Your task to perform on an android device: Open the calendar and show me this week's events? Image 0: 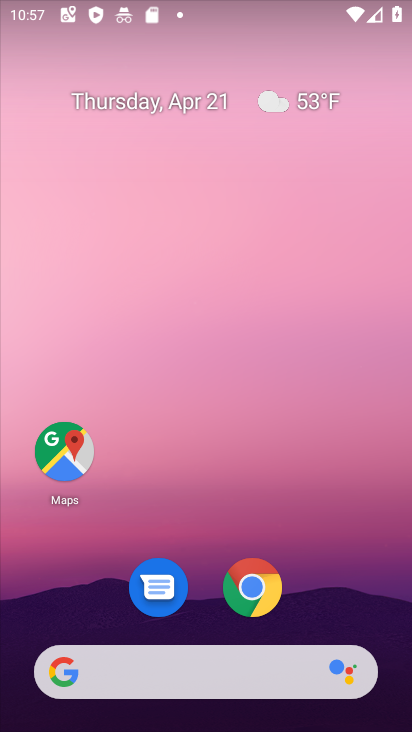
Step 0: click (259, 600)
Your task to perform on an android device: Open the calendar and show me this week's events? Image 1: 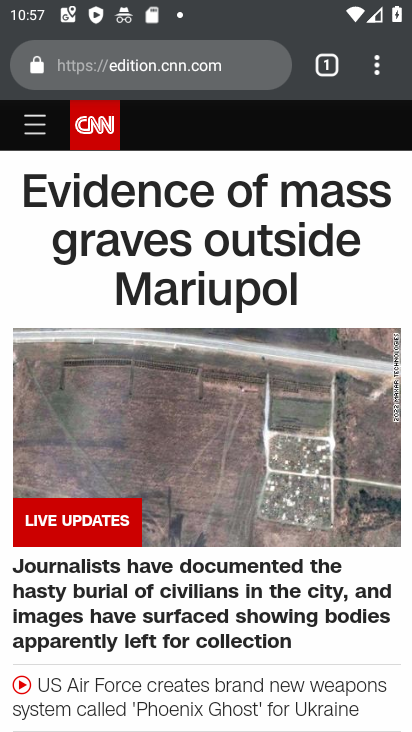
Step 1: press home button
Your task to perform on an android device: Open the calendar and show me this week's events? Image 2: 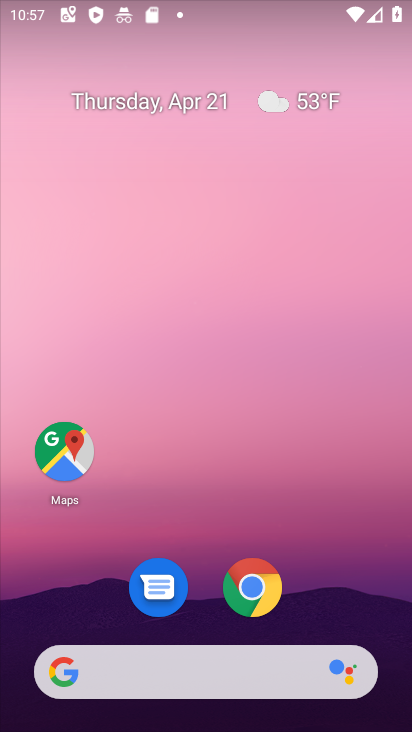
Step 2: click (159, 660)
Your task to perform on an android device: Open the calendar and show me this week's events? Image 3: 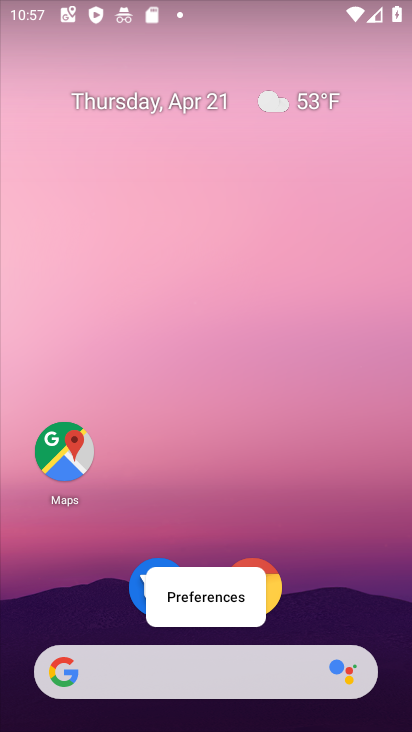
Step 3: drag from (140, 639) to (122, 97)
Your task to perform on an android device: Open the calendar and show me this week's events? Image 4: 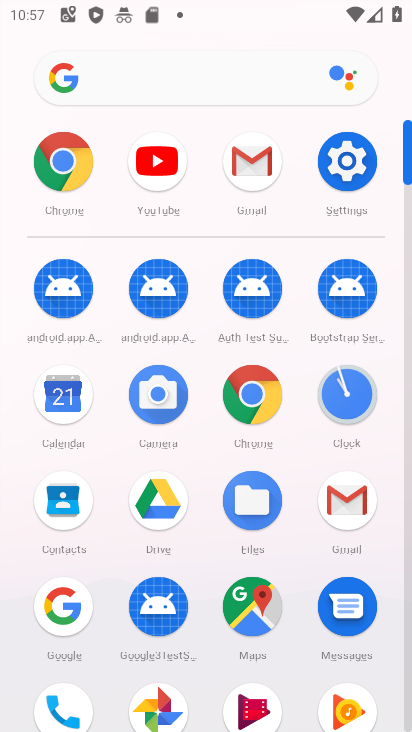
Step 4: click (68, 408)
Your task to perform on an android device: Open the calendar and show me this week's events? Image 5: 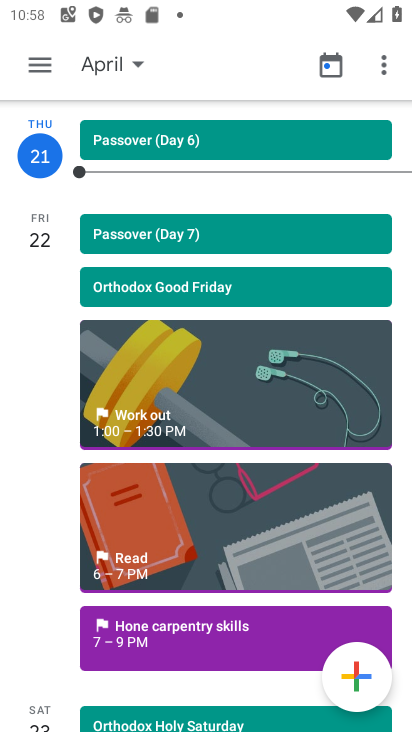
Step 5: click (39, 62)
Your task to perform on an android device: Open the calendar and show me this week's events? Image 6: 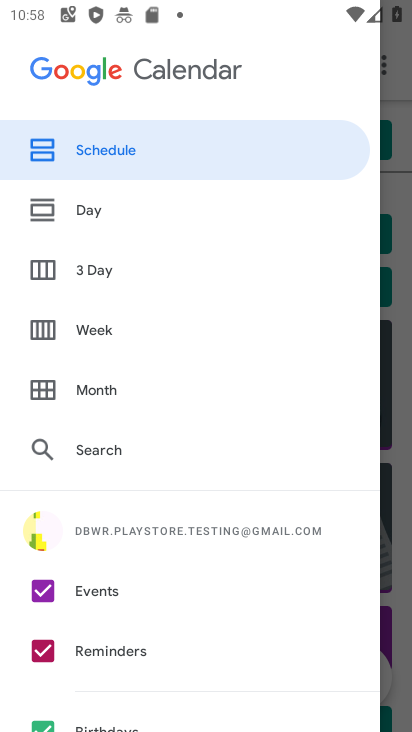
Step 6: click (103, 324)
Your task to perform on an android device: Open the calendar and show me this week's events? Image 7: 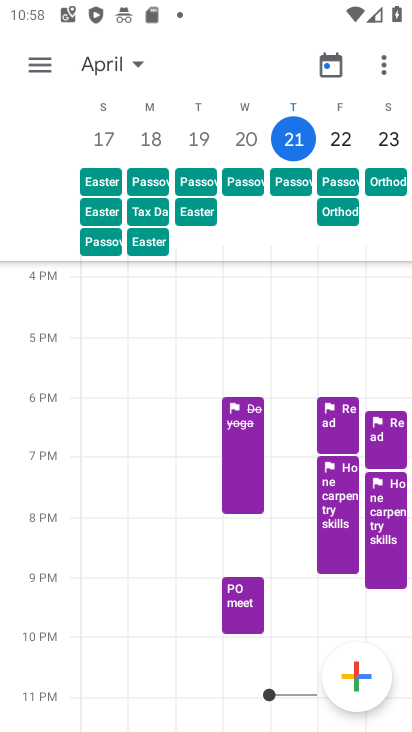
Step 7: task complete